Your task to perform on an android device: turn on javascript in the chrome app Image 0: 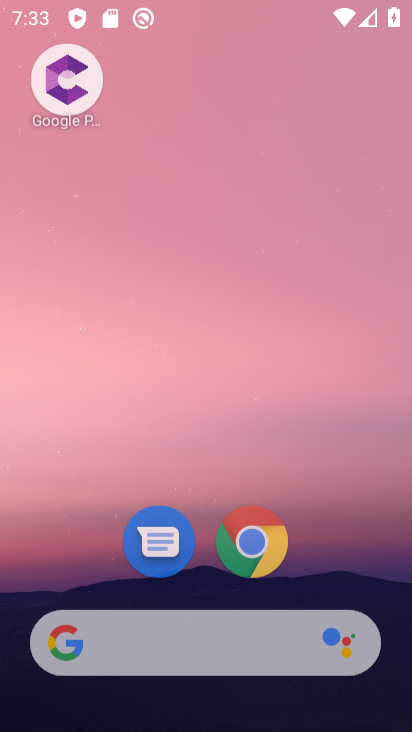
Step 0: drag from (173, 151) to (169, 74)
Your task to perform on an android device: turn on javascript in the chrome app Image 1: 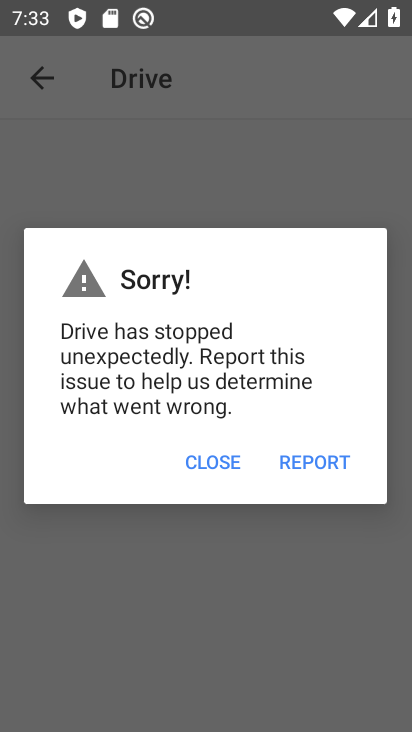
Step 1: press home button
Your task to perform on an android device: turn on javascript in the chrome app Image 2: 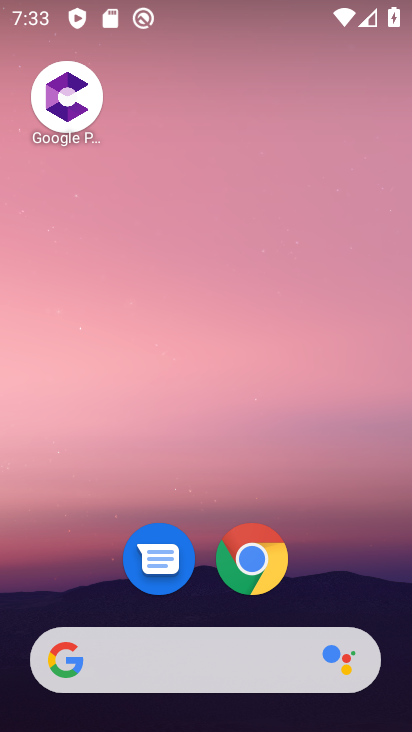
Step 2: drag from (268, 642) to (225, 31)
Your task to perform on an android device: turn on javascript in the chrome app Image 3: 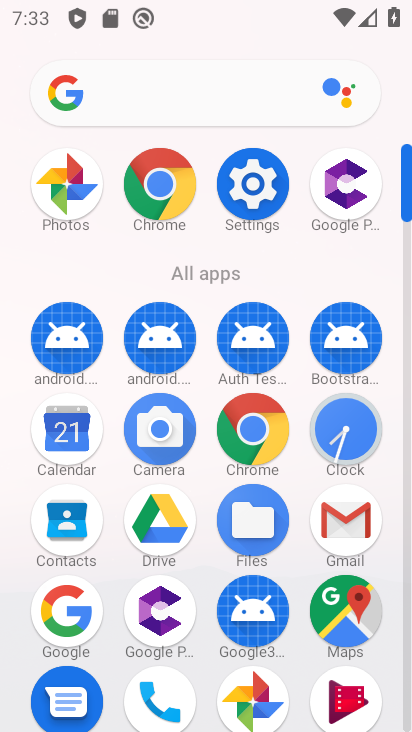
Step 3: click (262, 440)
Your task to perform on an android device: turn on javascript in the chrome app Image 4: 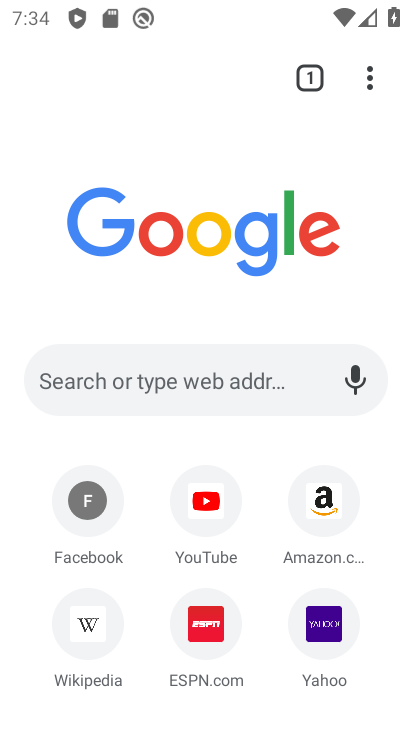
Step 4: click (371, 88)
Your task to perform on an android device: turn on javascript in the chrome app Image 5: 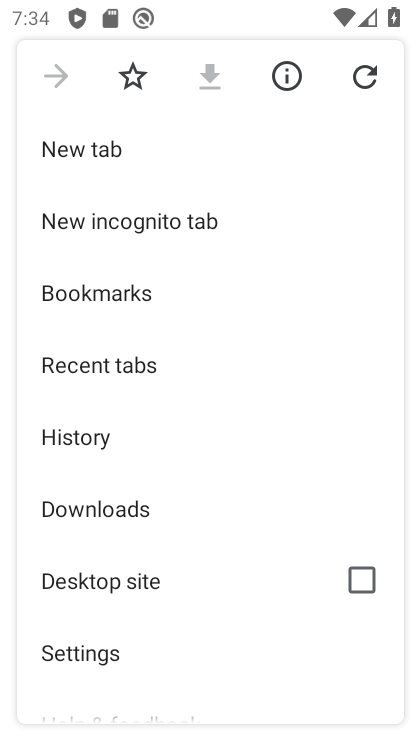
Step 5: click (139, 659)
Your task to perform on an android device: turn on javascript in the chrome app Image 6: 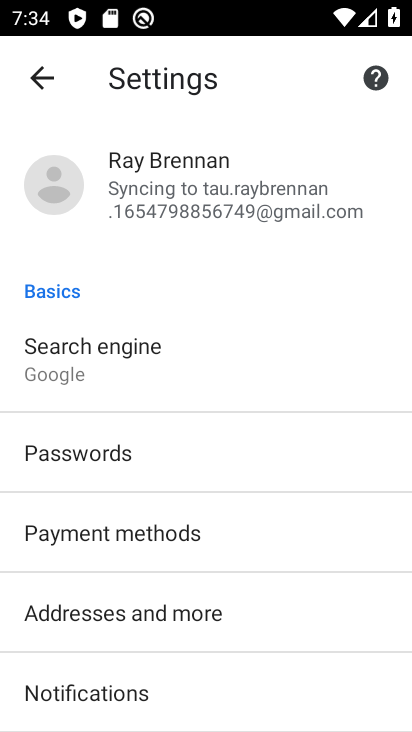
Step 6: drag from (157, 647) to (233, 338)
Your task to perform on an android device: turn on javascript in the chrome app Image 7: 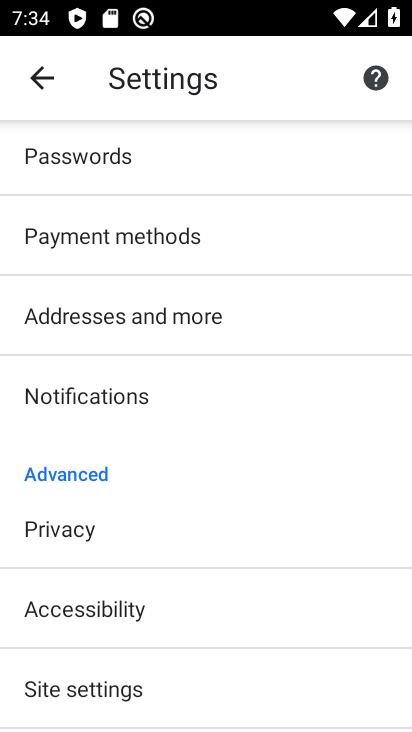
Step 7: click (103, 677)
Your task to perform on an android device: turn on javascript in the chrome app Image 8: 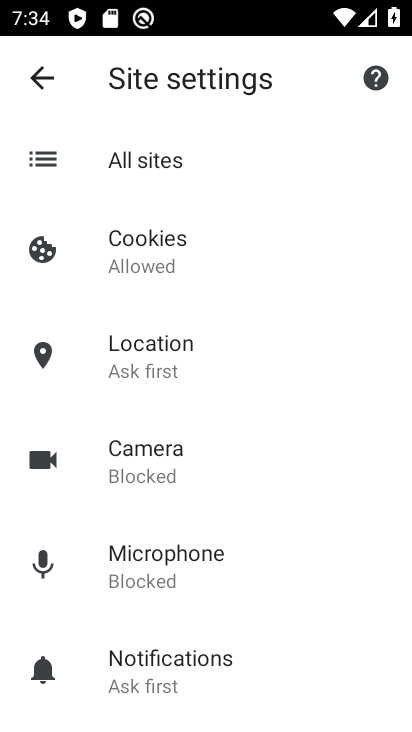
Step 8: drag from (171, 471) to (188, 375)
Your task to perform on an android device: turn on javascript in the chrome app Image 9: 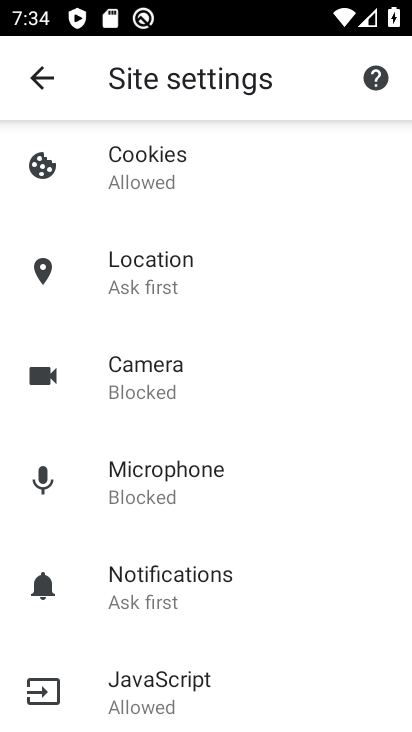
Step 9: click (202, 701)
Your task to perform on an android device: turn on javascript in the chrome app Image 10: 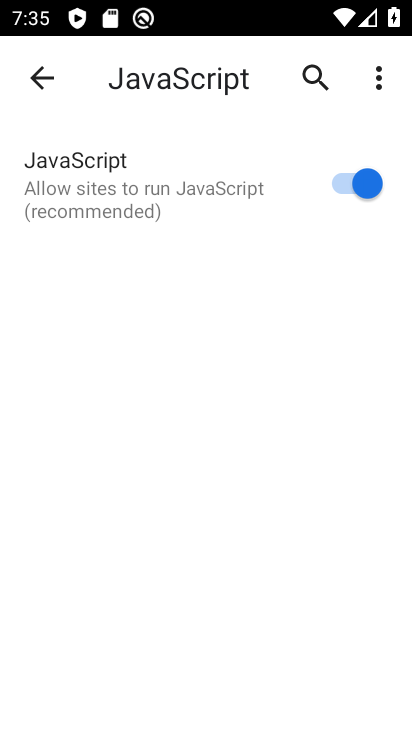
Step 10: task complete